Your task to perform on an android device: Check the weather Image 0: 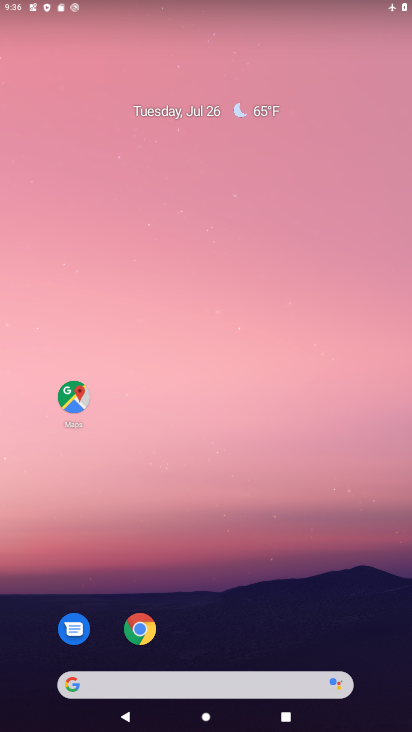
Step 0: drag from (350, 611) to (242, 122)
Your task to perform on an android device: Check the weather Image 1: 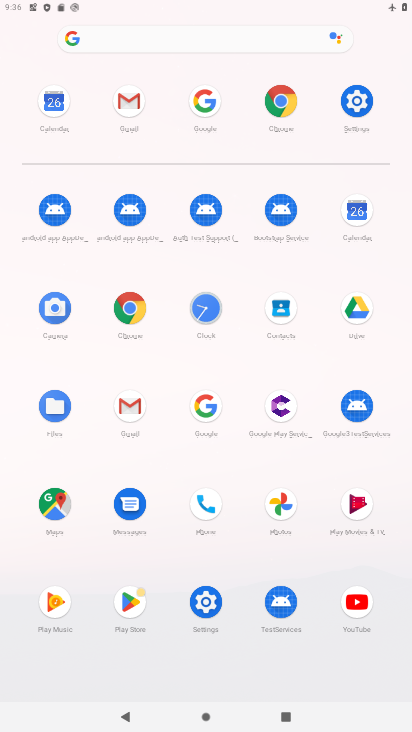
Step 1: click (278, 101)
Your task to perform on an android device: Check the weather Image 2: 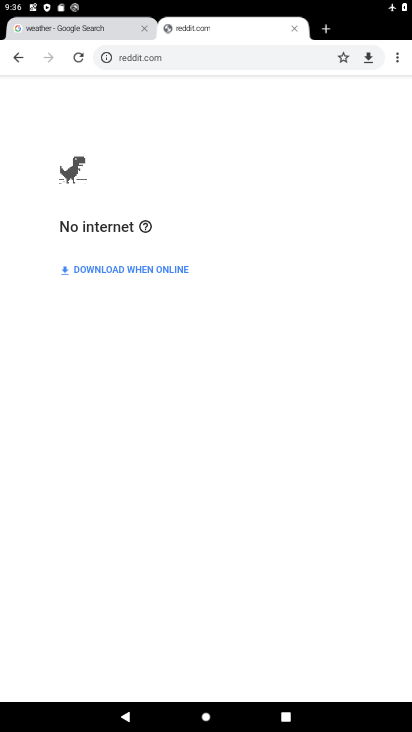
Step 2: click (232, 59)
Your task to perform on an android device: Check the weather Image 3: 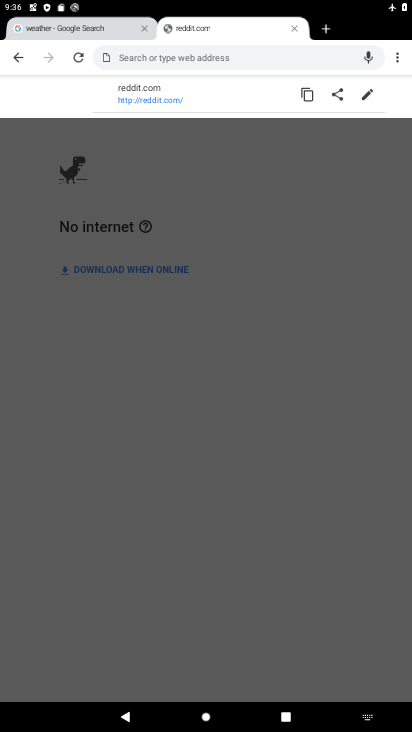
Step 3: type "weather"
Your task to perform on an android device: Check the weather Image 4: 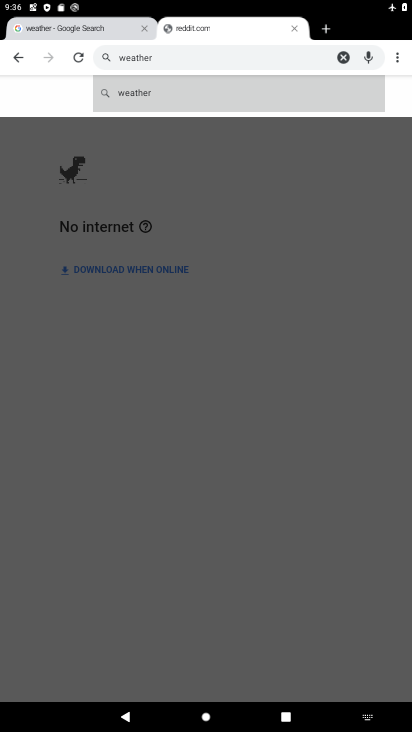
Step 4: click (138, 98)
Your task to perform on an android device: Check the weather Image 5: 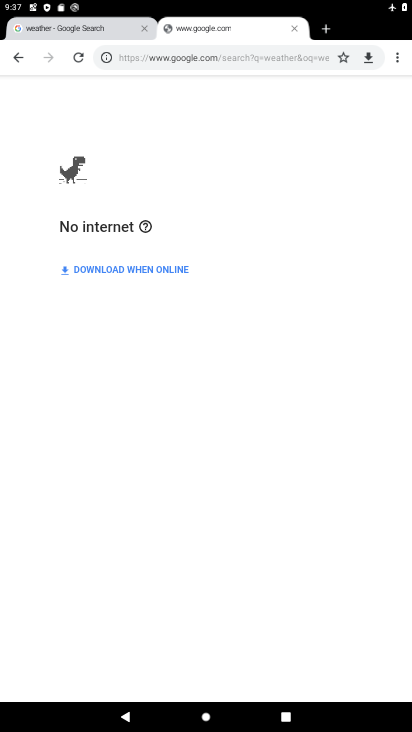
Step 5: task complete